Your task to perform on an android device: Open Android settings Image 0: 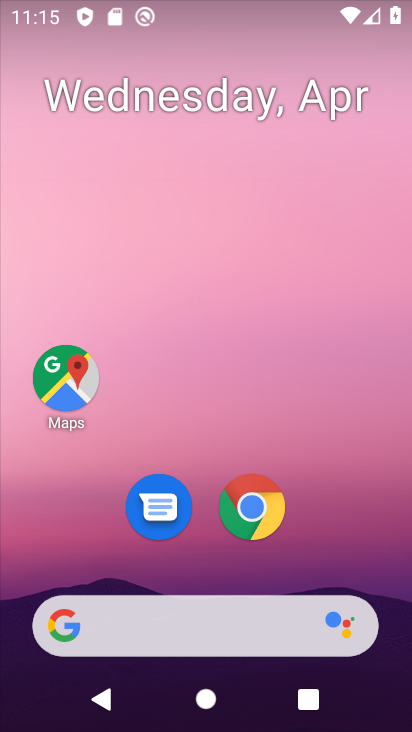
Step 0: drag from (370, 573) to (269, 87)
Your task to perform on an android device: Open Android settings Image 1: 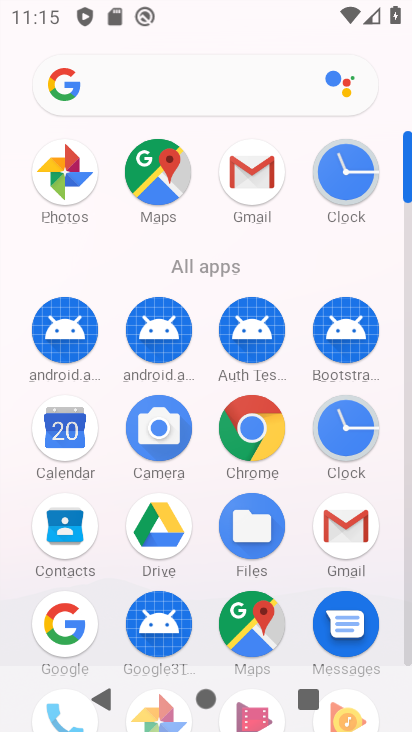
Step 1: drag from (295, 646) to (321, 177)
Your task to perform on an android device: Open Android settings Image 2: 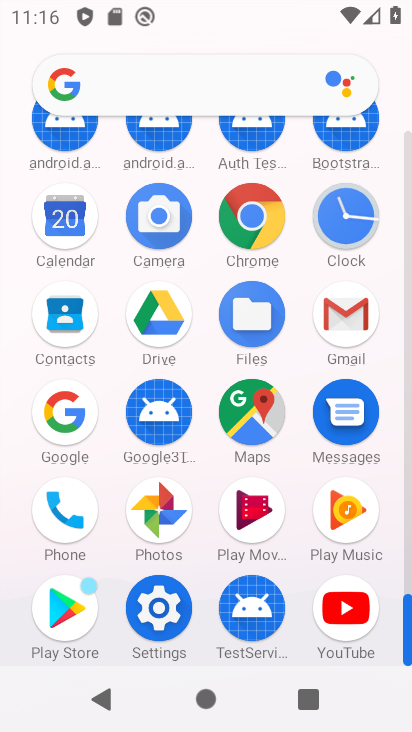
Step 2: click (152, 607)
Your task to perform on an android device: Open Android settings Image 3: 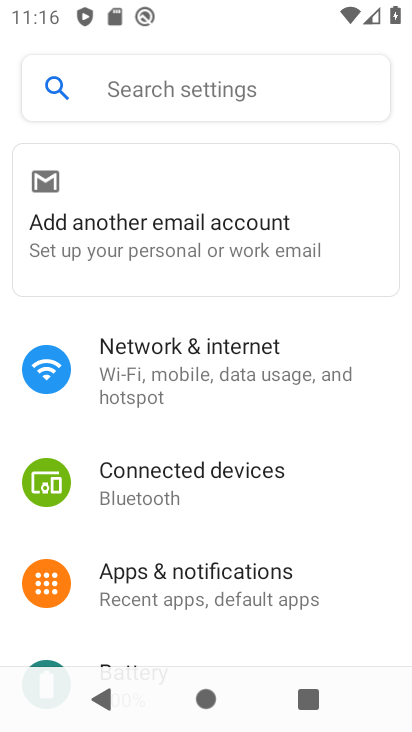
Step 3: drag from (211, 586) to (253, 40)
Your task to perform on an android device: Open Android settings Image 4: 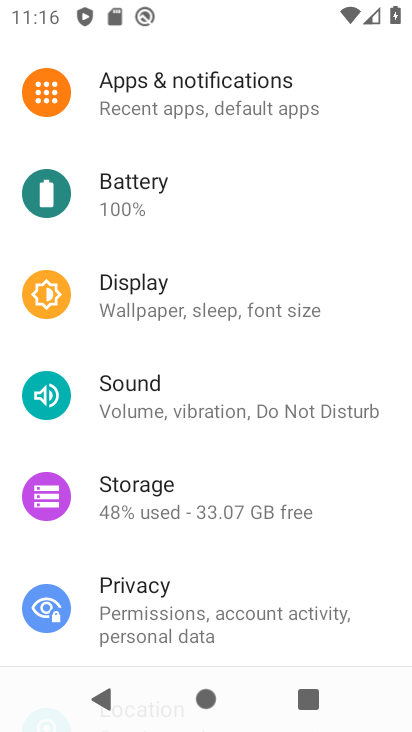
Step 4: drag from (134, 568) to (214, 64)
Your task to perform on an android device: Open Android settings Image 5: 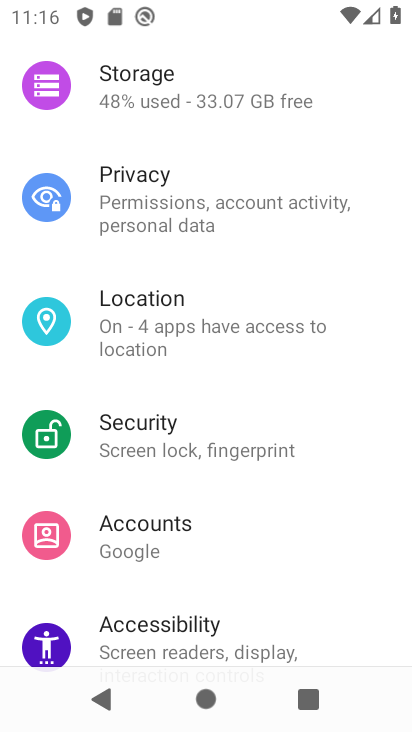
Step 5: drag from (181, 554) to (210, 55)
Your task to perform on an android device: Open Android settings Image 6: 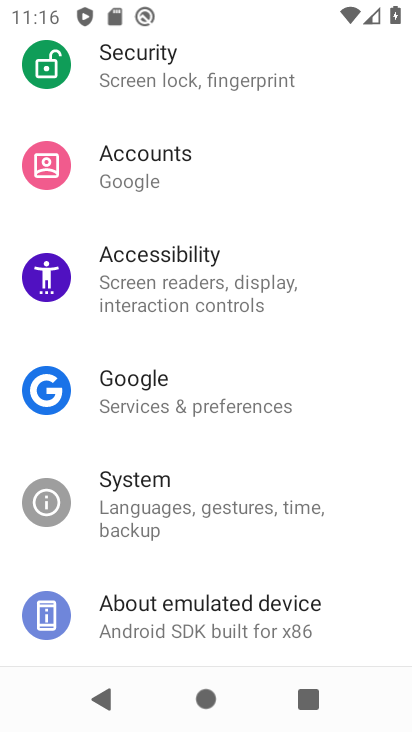
Step 6: drag from (181, 612) to (267, 196)
Your task to perform on an android device: Open Android settings Image 7: 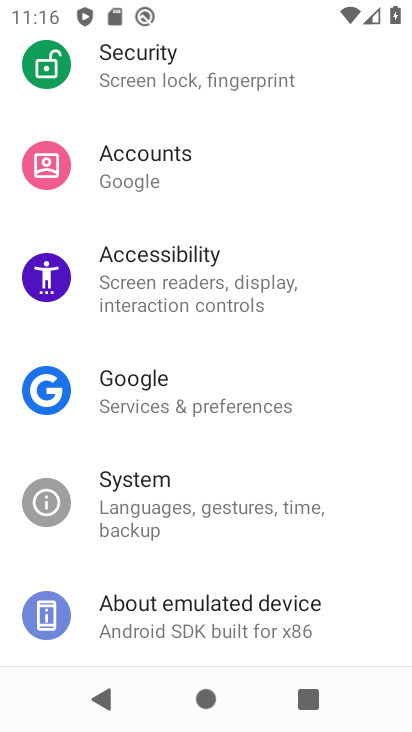
Step 7: click (187, 602)
Your task to perform on an android device: Open Android settings Image 8: 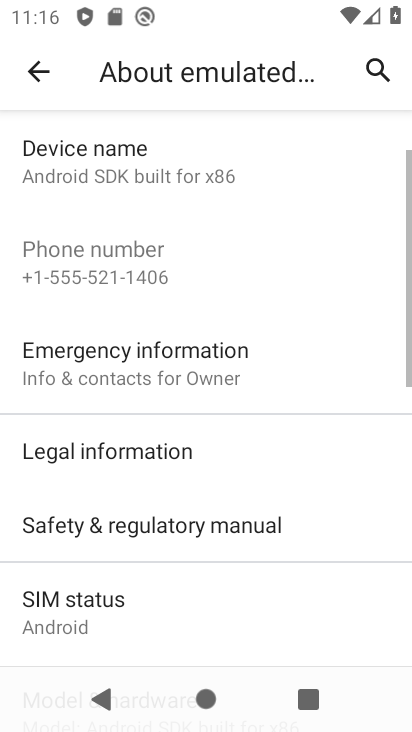
Step 8: drag from (170, 592) to (230, 198)
Your task to perform on an android device: Open Android settings Image 9: 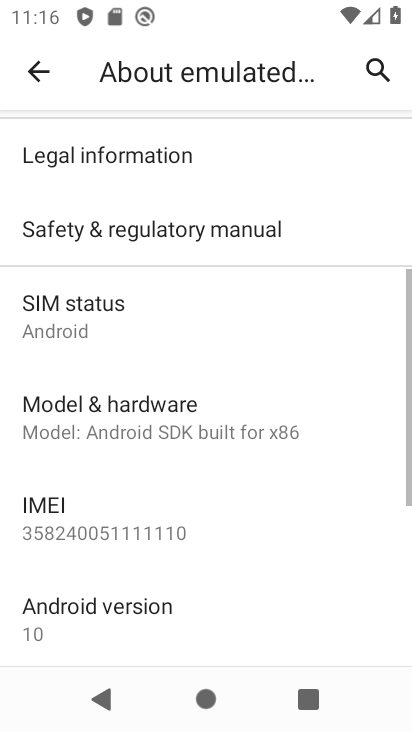
Step 9: click (91, 612)
Your task to perform on an android device: Open Android settings Image 10: 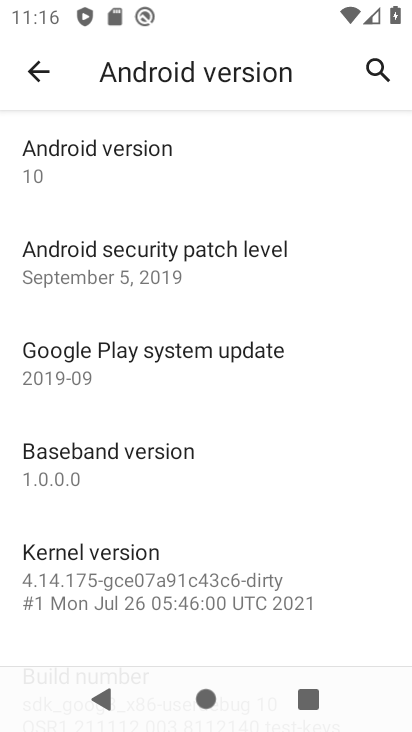
Step 10: task complete